Your task to perform on an android device: Search for sushi restaurants on Maps Image 0: 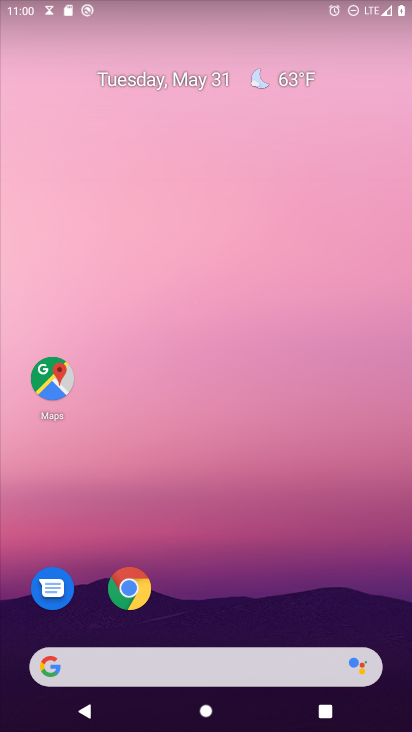
Step 0: click (51, 381)
Your task to perform on an android device: Search for sushi restaurants on Maps Image 1: 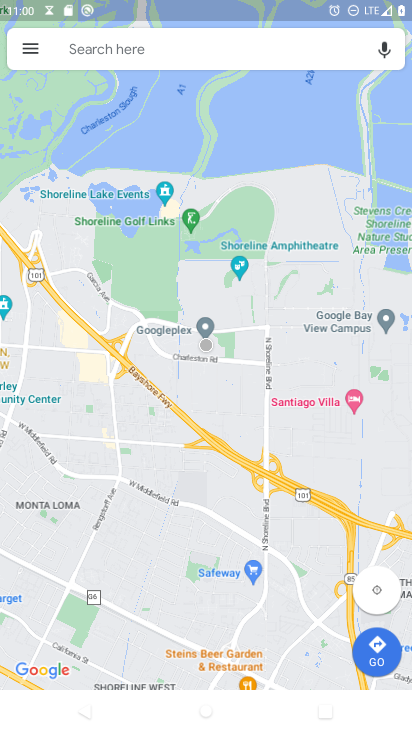
Step 1: click (183, 54)
Your task to perform on an android device: Search for sushi restaurants on Maps Image 2: 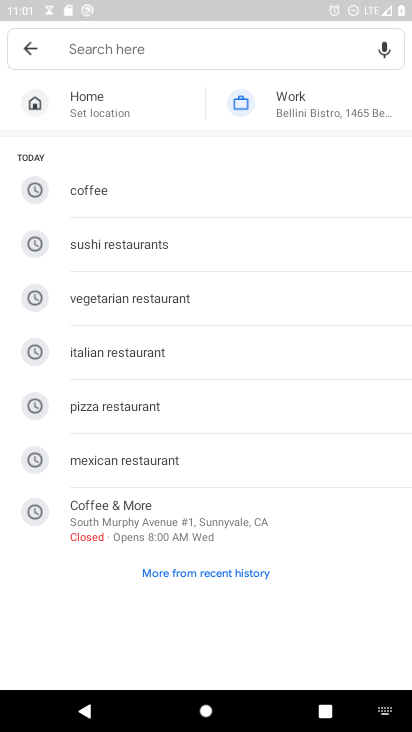
Step 2: type "sushi restaurants"
Your task to perform on an android device: Search for sushi restaurants on Maps Image 3: 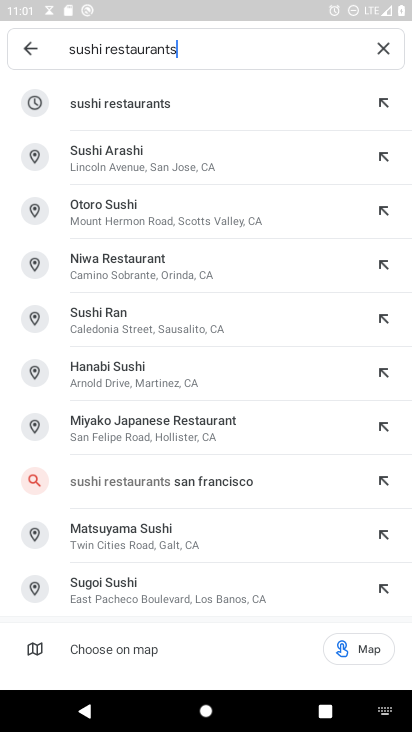
Step 3: click (157, 107)
Your task to perform on an android device: Search for sushi restaurants on Maps Image 4: 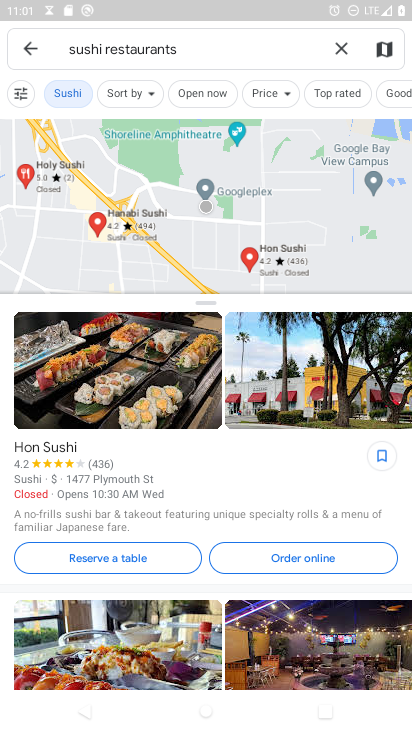
Step 4: task complete